Your task to perform on an android device: allow cookies in the chrome app Image 0: 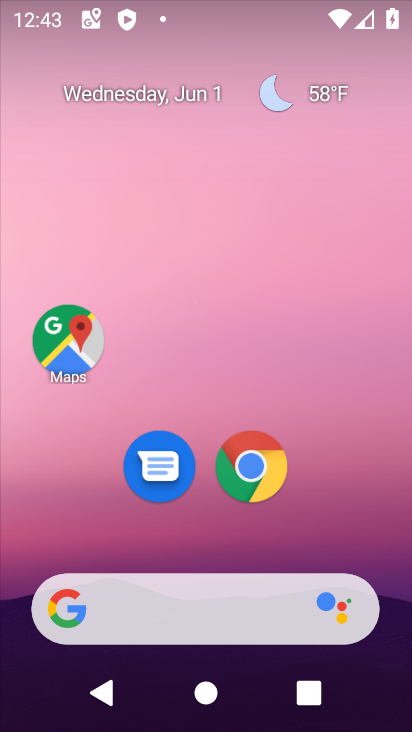
Step 0: drag from (401, 563) to (361, 186)
Your task to perform on an android device: allow cookies in the chrome app Image 1: 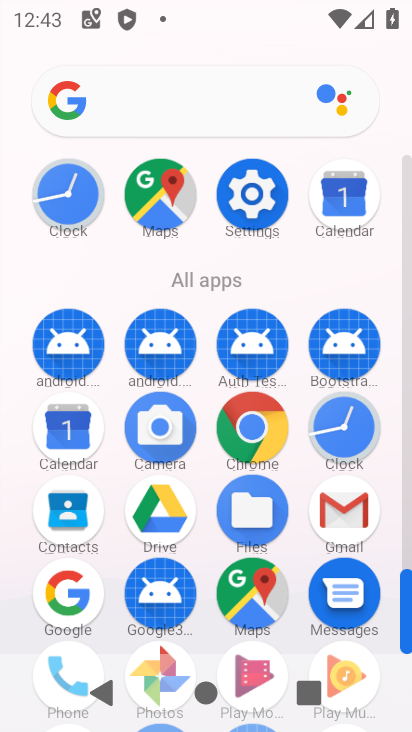
Step 1: click (246, 422)
Your task to perform on an android device: allow cookies in the chrome app Image 2: 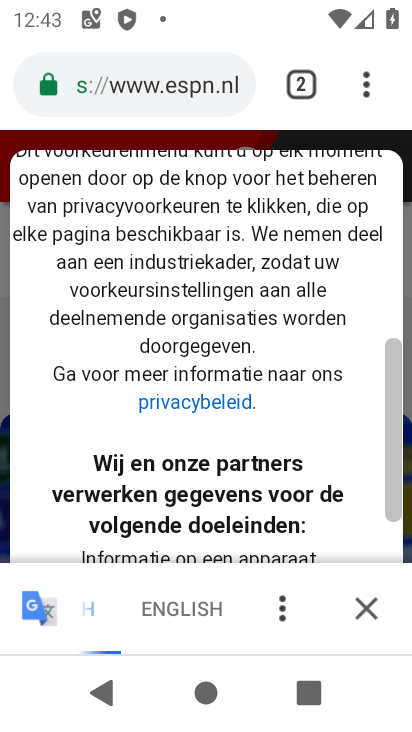
Step 2: click (382, 84)
Your task to perform on an android device: allow cookies in the chrome app Image 3: 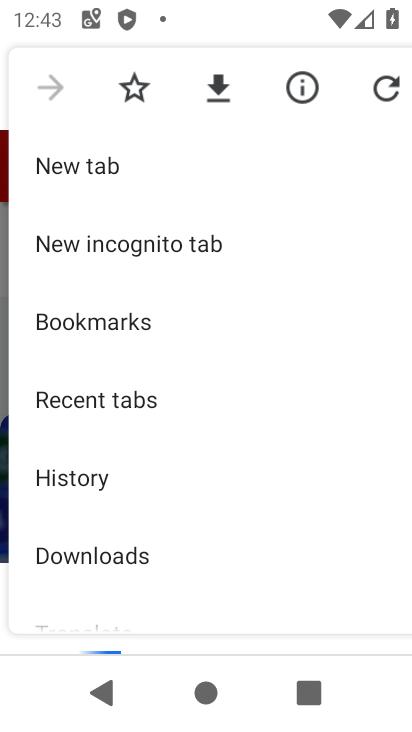
Step 3: drag from (178, 568) to (177, 181)
Your task to perform on an android device: allow cookies in the chrome app Image 4: 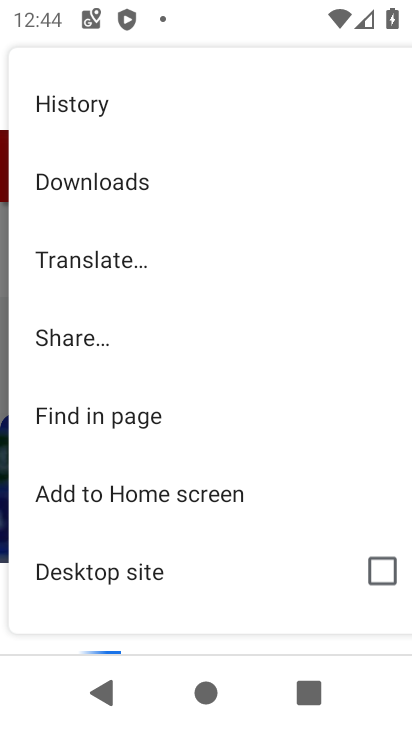
Step 4: drag from (168, 593) to (162, 296)
Your task to perform on an android device: allow cookies in the chrome app Image 5: 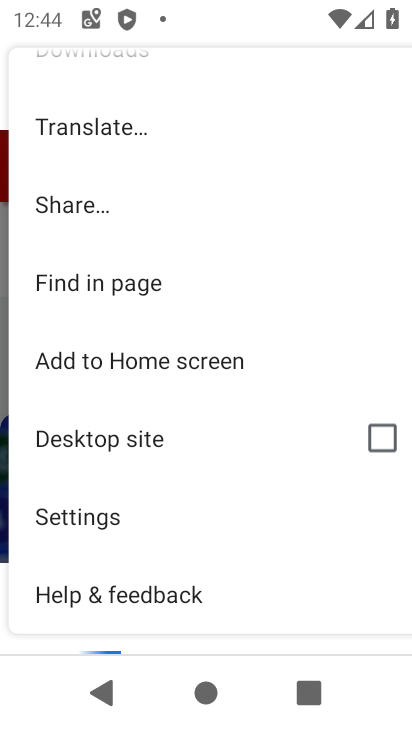
Step 5: click (176, 513)
Your task to perform on an android device: allow cookies in the chrome app Image 6: 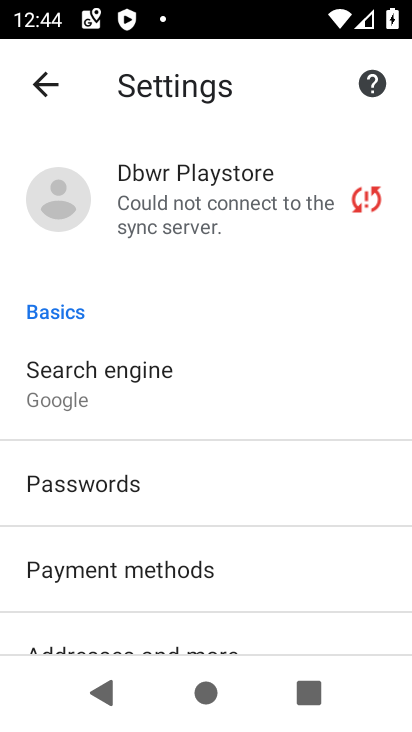
Step 6: drag from (229, 636) to (203, 126)
Your task to perform on an android device: allow cookies in the chrome app Image 7: 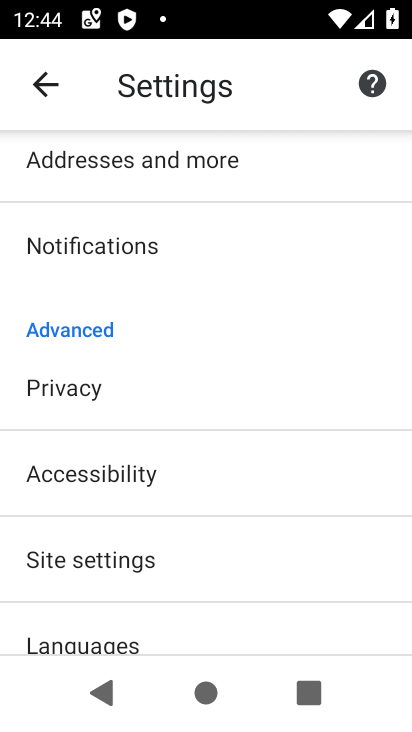
Step 7: click (216, 558)
Your task to perform on an android device: allow cookies in the chrome app Image 8: 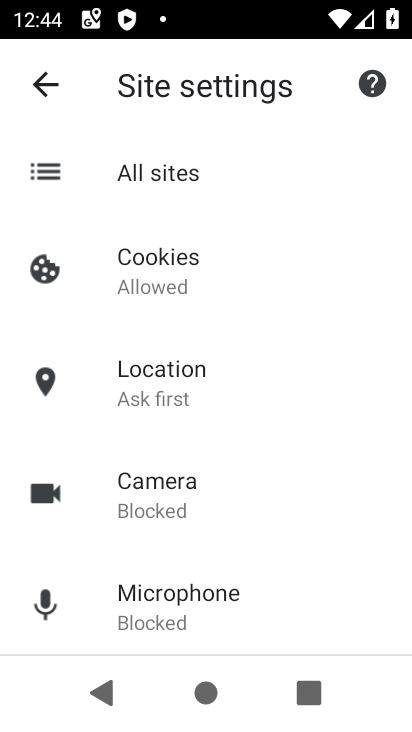
Step 8: drag from (246, 619) to (198, 525)
Your task to perform on an android device: allow cookies in the chrome app Image 9: 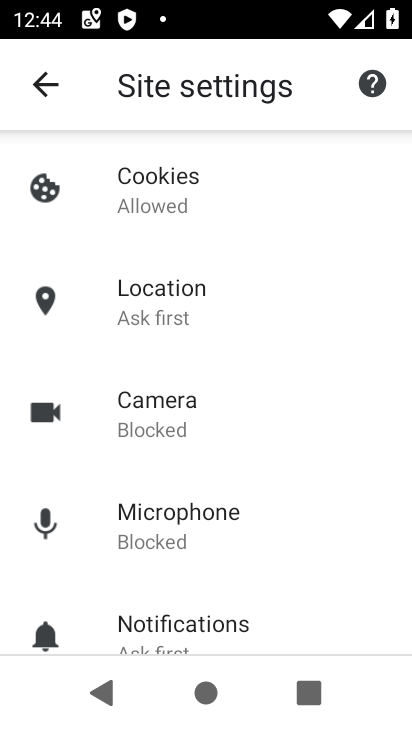
Step 9: click (165, 215)
Your task to perform on an android device: allow cookies in the chrome app Image 10: 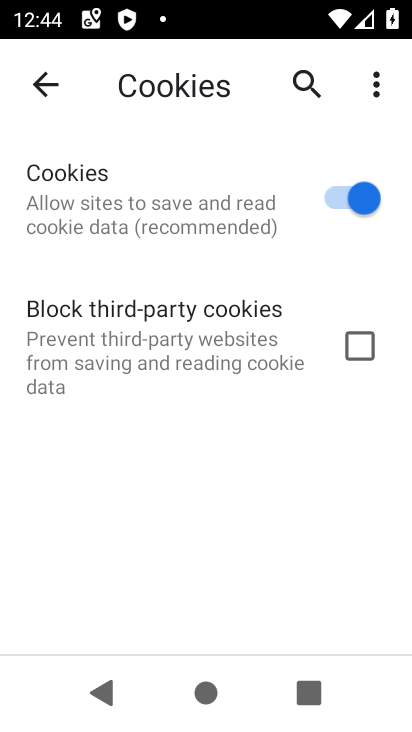
Step 10: task complete